Your task to perform on an android device: turn off translation in the chrome app Image 0: 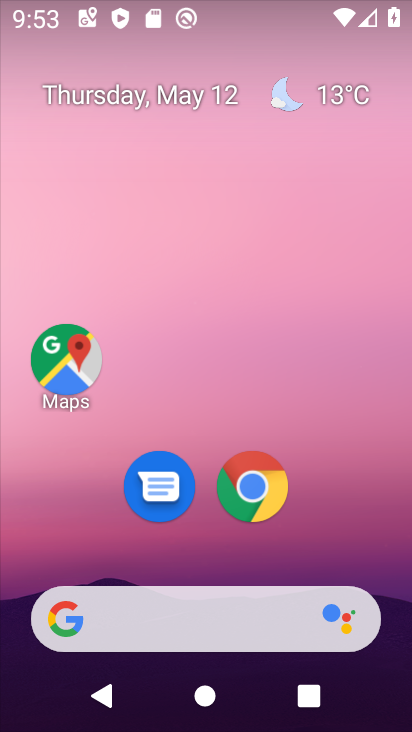
Step 0: drag from (359, 486) to (281, 180)
Your task to perform on an android device: turn off translation in the chrome app Image 1: 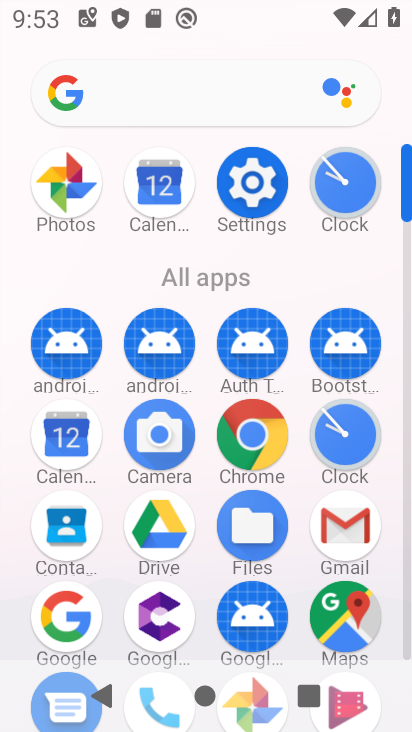
Step 1: click (238, 430)
Your task to perform on an android device: turn off translation in the chrome app Image 2: 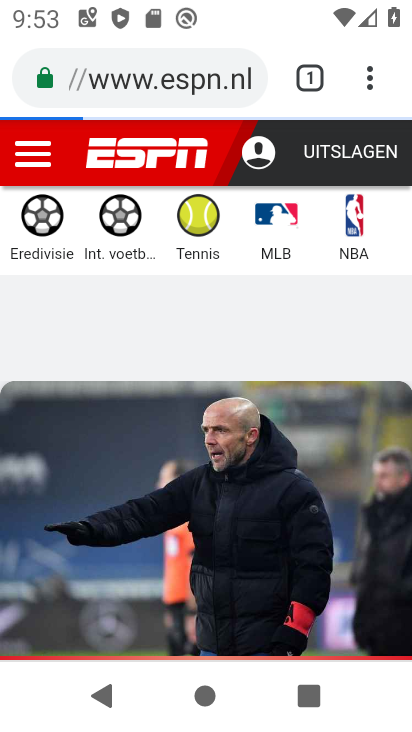
Step 2: click (371, 88)
Your task to perform on an android device: turn off translation in the chrome app Image 3: 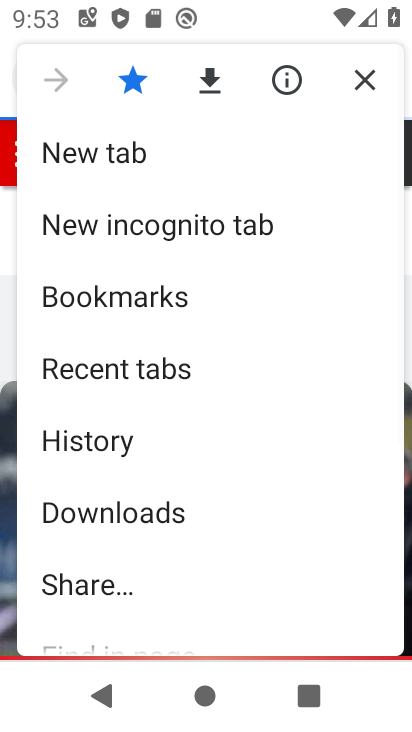
Step 3: drag from (235, 520) to (189, 295)
Your task to perform on an android device: turn off translation in the chrome app Image 4: 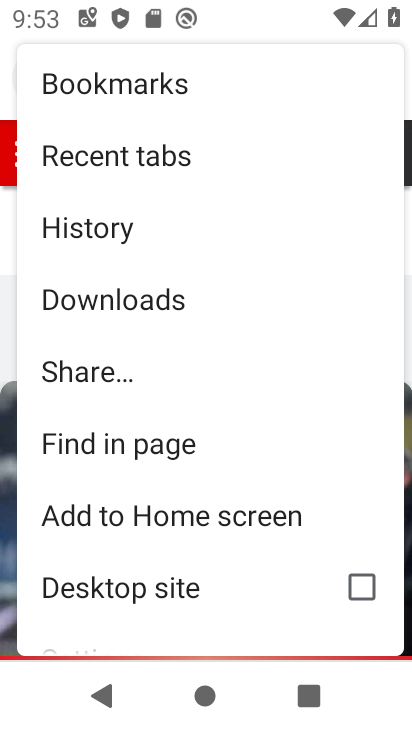
Step 4: drag from (222, 527) to (188, 343)
Your task to perform on an android device: turn off translation in the chrome app Image 5: 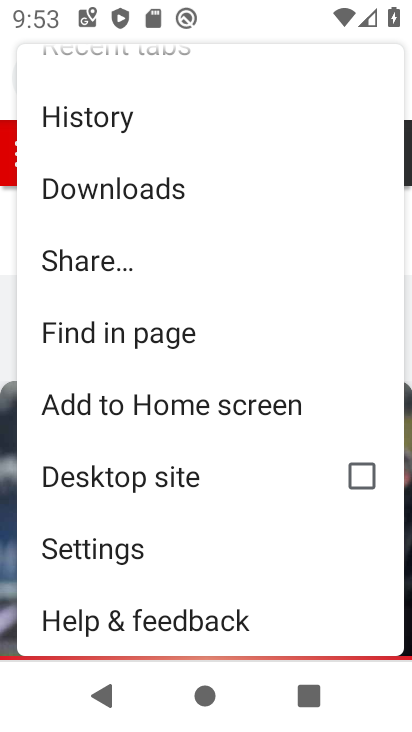
Step 5: click (152, 554)
Your task to perform on an android device: turn off translation in the chrome app Image 6: 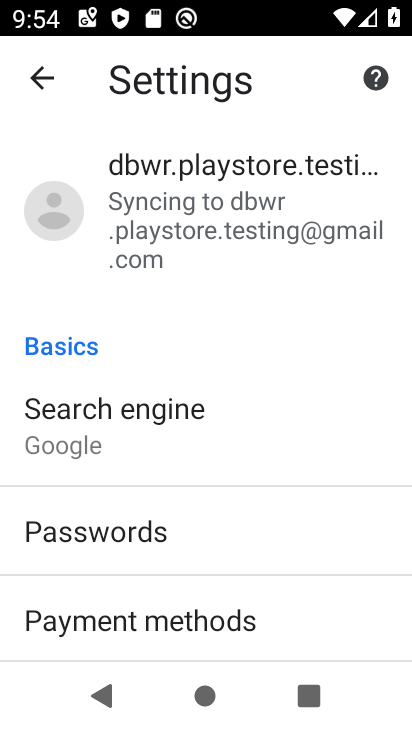
Step 6: drag from (204, 528) to (170, 306)
Your task to perform on an android device: turn off translation in the chrome app Image 7: 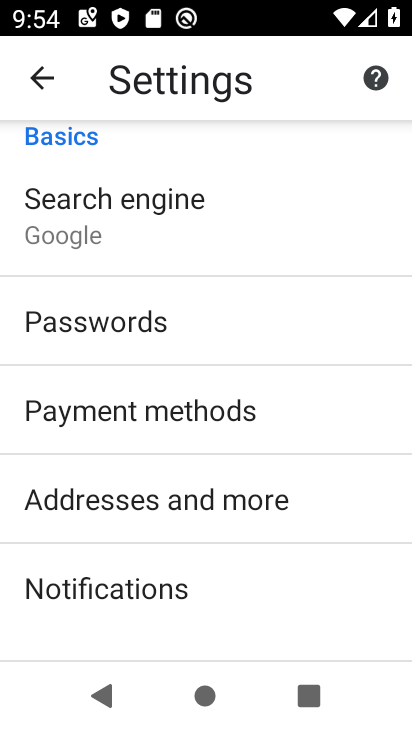
Step 7: drag from (233, 574) to (191, 294)
Your task to perform on an android device: turn off translation in the chrome app Image 8: 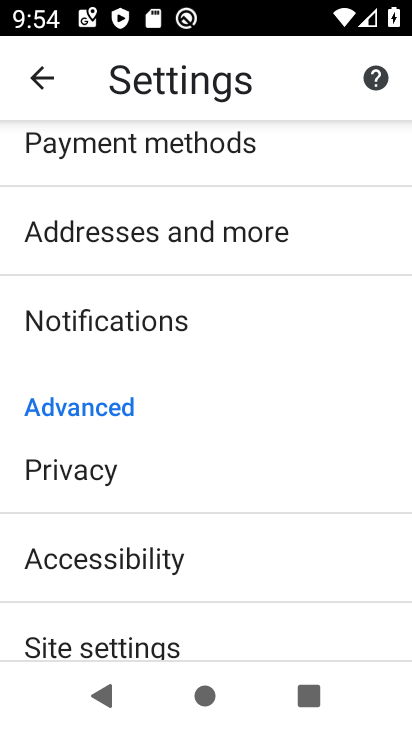
Step 8: drag from (249, 531) to (218, 358)
Your task to perform on an android device: turn off translation in the chrome app Image 9: 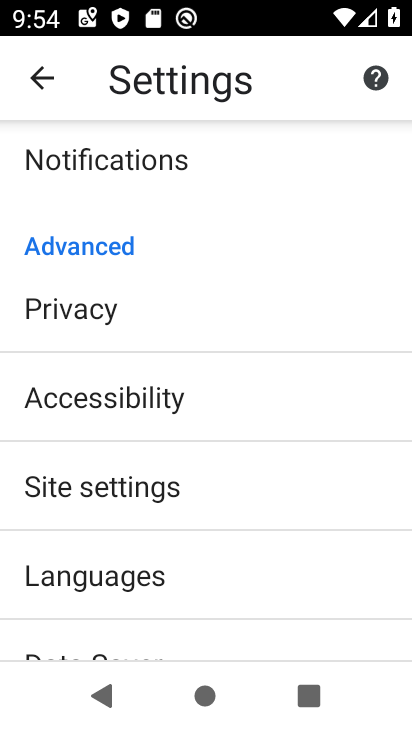
Step 9: click (118, 572)
Your task to perform on an android device: turn off translation in the chrome app Image 10: 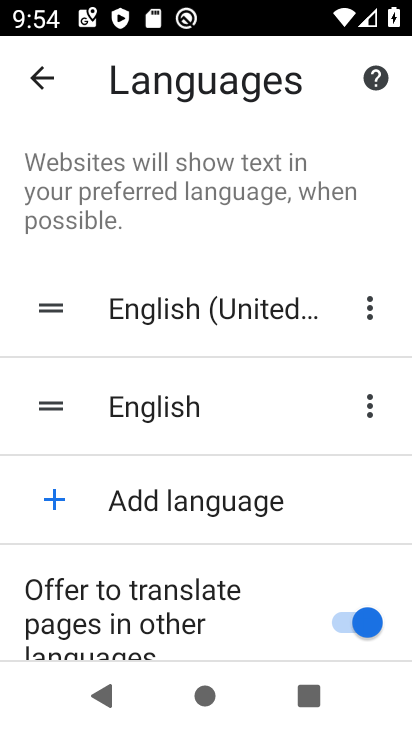
Step 10: drag from (184, 599) to (152, 481)
Your task to perform on an android device: turn off translation in the chrome app Image 11: 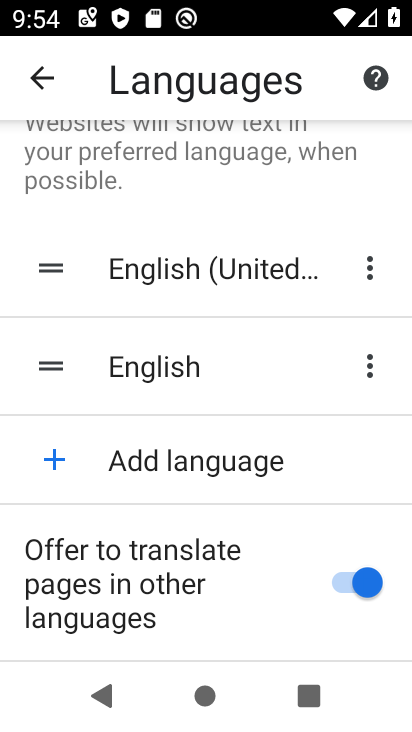
Step 11: click (327, 580)
Your task to perform on an android device: turn off translation in the chrome app Image 12: 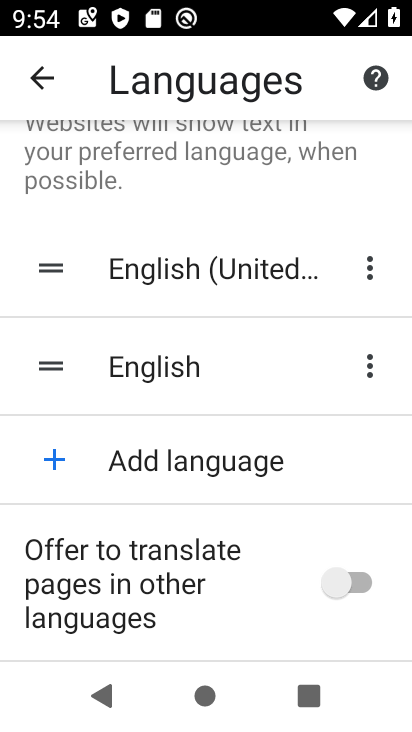
Step 12: task complete